Your task to perform on an android device: Turn on the flashlight Image 0: 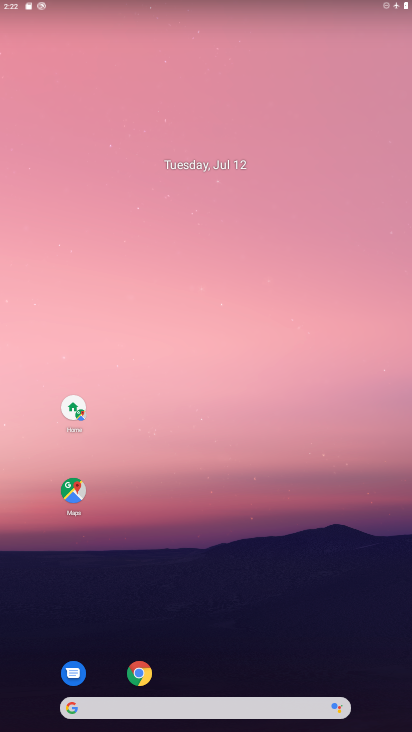
Step 0: drag from (192, 667) to (181, 308)
Your task to perform on an android device: Turn on the flashlight Image 1: 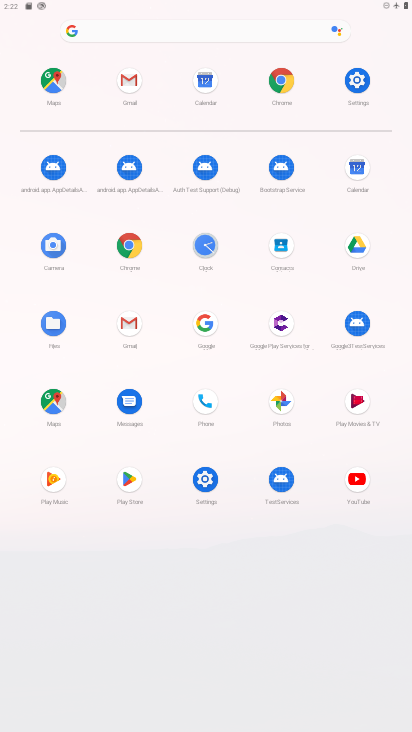
Step 1: click (357, 71)
Your task to perform on an android device: Turn on the flashlight Image 2: 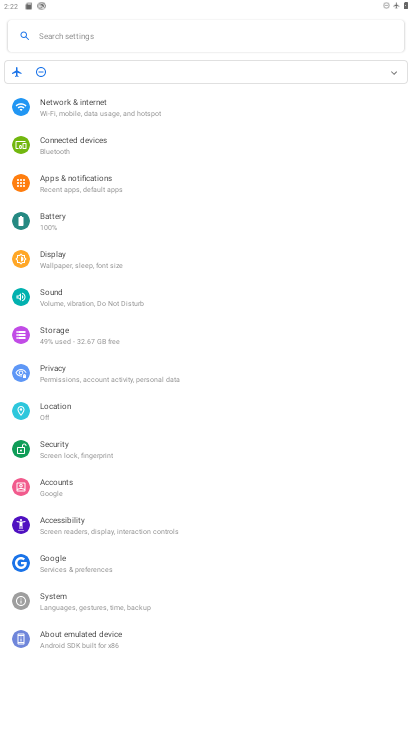
Step 2: task complete